Your task to perform on an android device: Open calendar and show me the fourth week of next month Image 0: 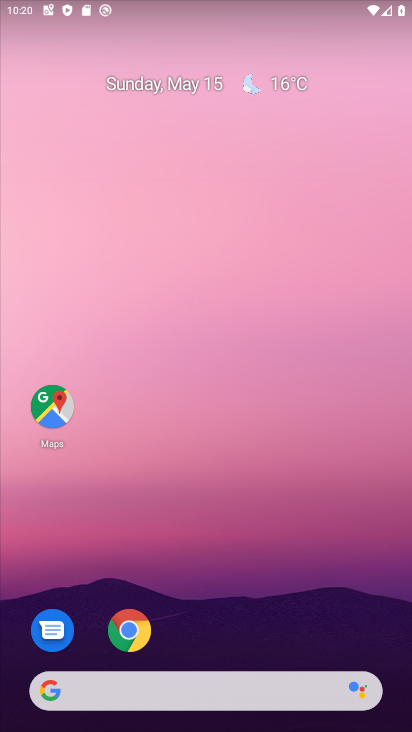
Step 0: drag from (248, 609) to (237, 267)
Your task to perform on an android device: Open calendar and show me the fourth week of next month Image 1: 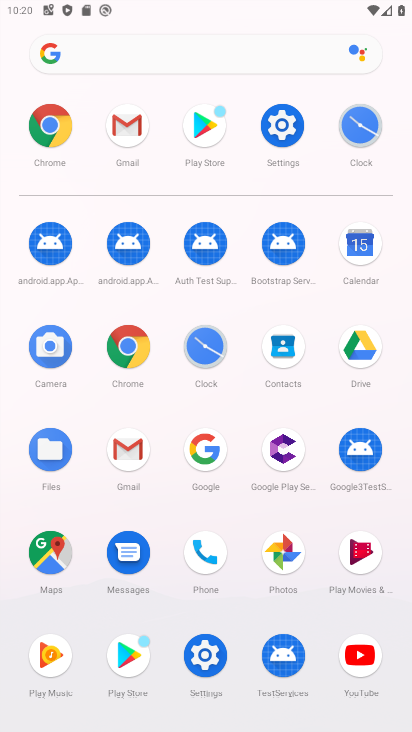
Step 1: click (351, 239)
Your task to perform on an android device: Open calendar and show me the fourth week of next month Image 2: 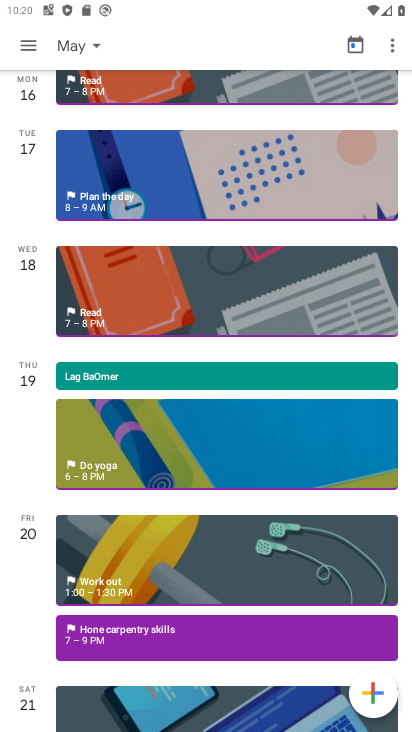
Step 2: click (89, 39)
Your task to perform on an android device: Open calendar and show me the fourth week of next month Image 3: 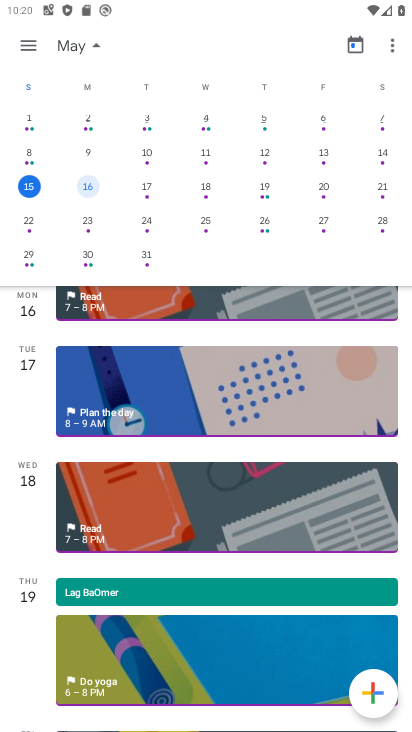
Step 3: drag from (307, 213) to (0, 206)
Your task to perform on an android device: Open calendar and show me the fourth week of next month Image 4: 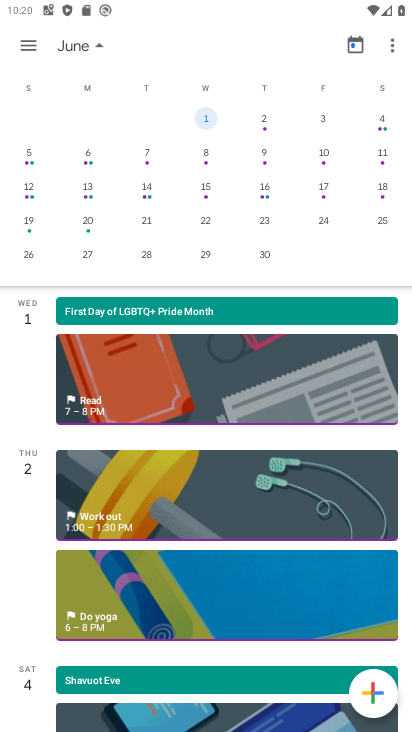
Step 4: click (35, 221)
Your task to perform on an android device: Open calendar and show me the fourth week of next month Image 5: 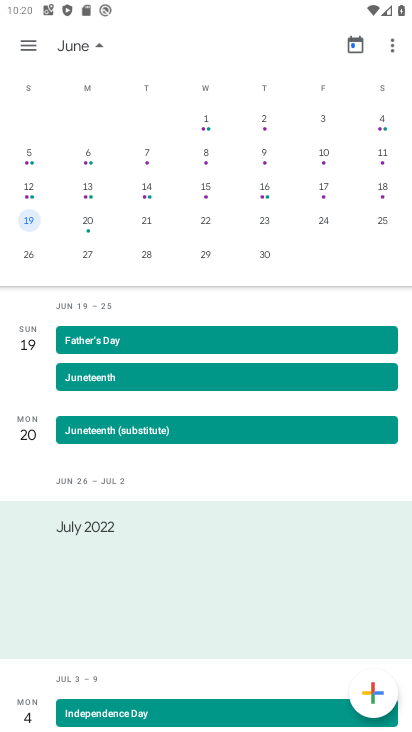
Step 5: task complete